Your task to perform on an android device: turn off sleep mode Image 0: 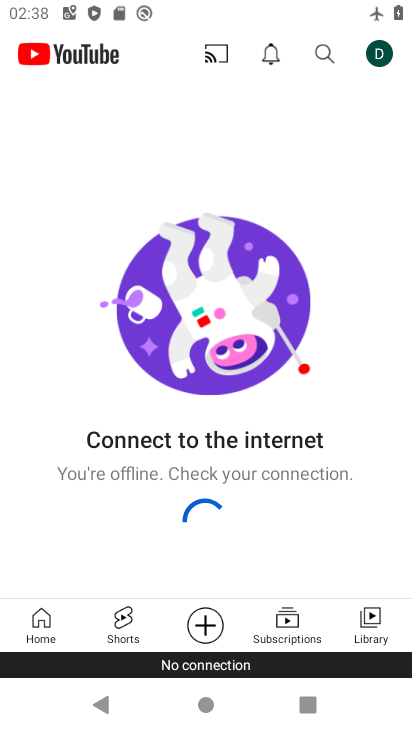
Step 0: press home button
Your task to perform on an android device: turn off sleep mode Image 1: 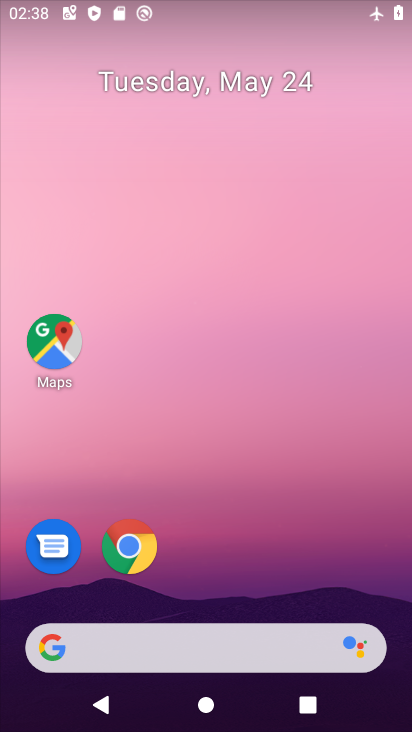
Step 1: drag from (204, 597) to (263, 348)
Your task to perform on an android device: turn off sleep mode Image 2: 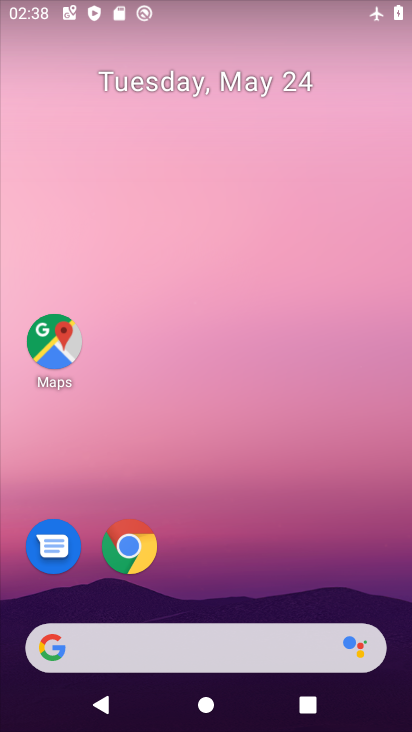
Step 2: drag from (197, 597) to (206, 153)
Your task to perform on an android device: turn off sleep mode Image 3: 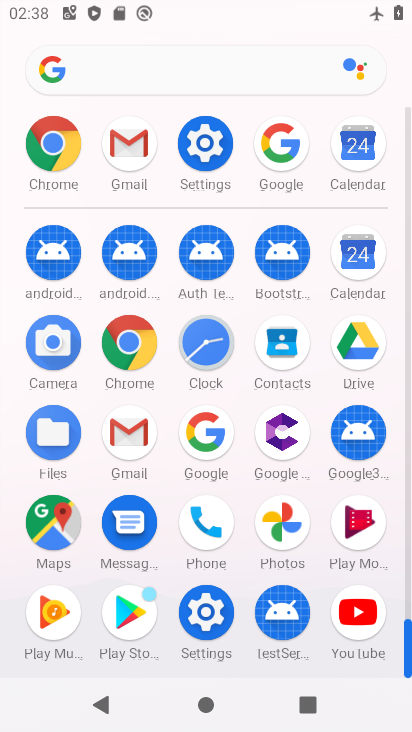
Step 3: click (205, 126)
Your task to perform on an android device: turn off sleep mode Image 4: 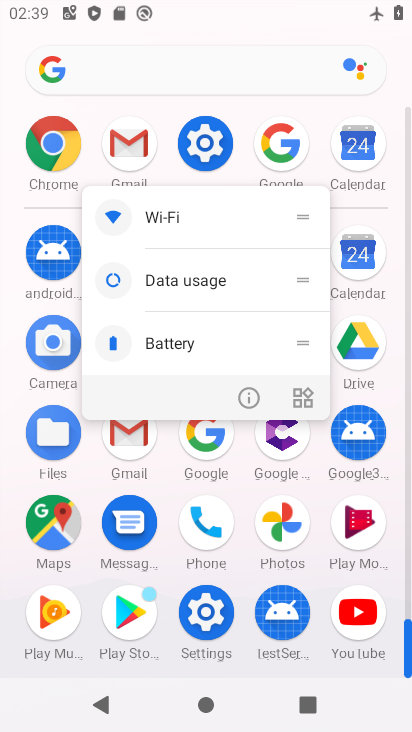
Step 4: click (250, 388)
Your task to perform on an android device: turn off sleep mode Image 5: 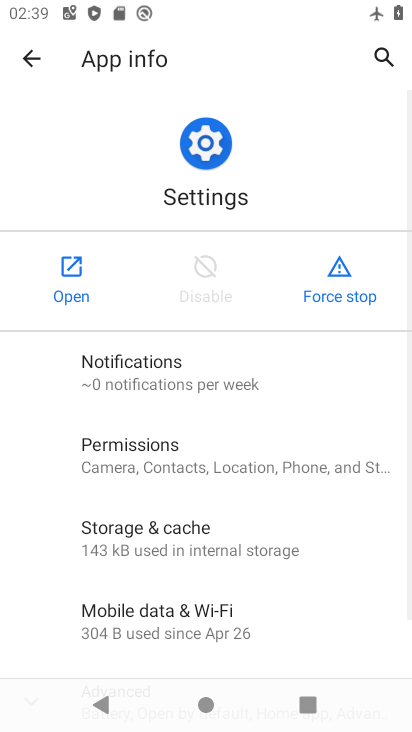
Step 5: click (67, 281)
Your task to perform on an android device: turn off sleep mode Image 6: 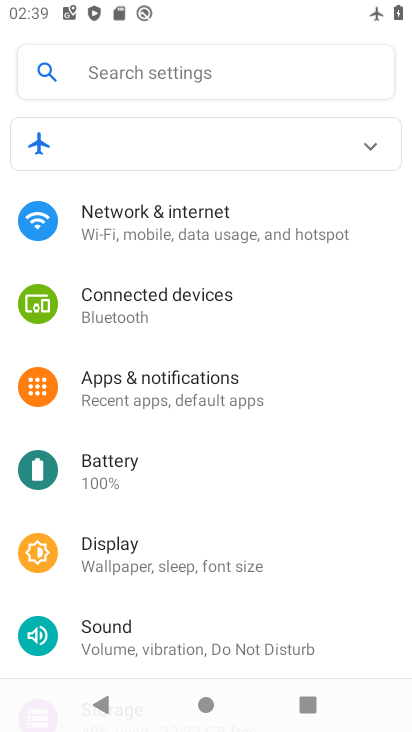
Step 6: click (146, 542)
Your task to perform on an android device: turn off sleep mode Image 7: 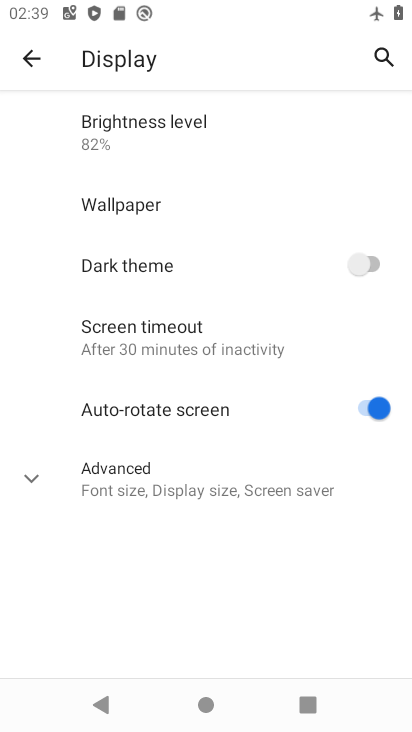
Step 7: click (182, 314)
Your task to perform on an android device: turn off sleep mode Image 8: 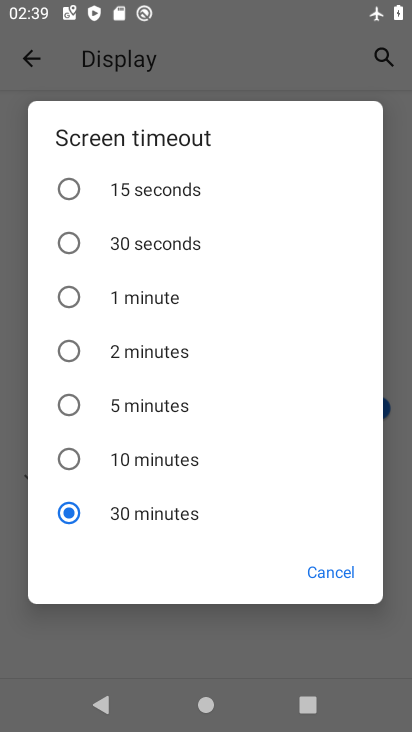
Step 8: task complete